Your task to perform on an android device: add a label to a message in the gmail app Image 0: 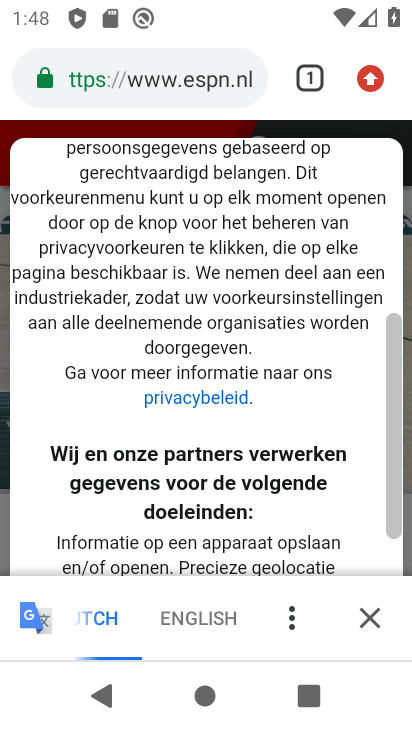
Step 0: press home button
Your task to perform on an android device: add a label to a message in the gmail app Image 1: 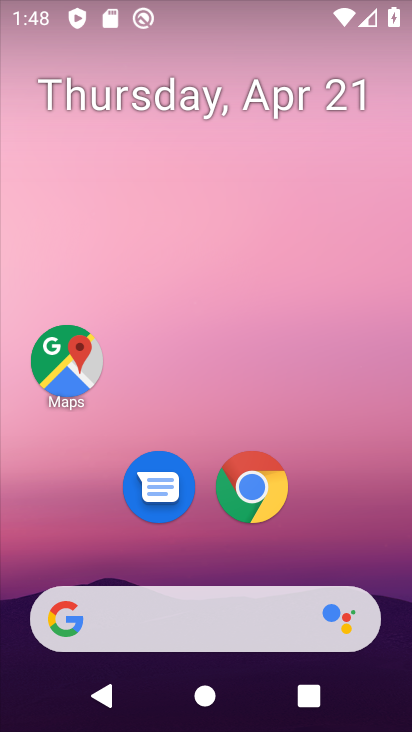
Step 1: drag from (216, 534) to (364, 35)
Your task to perform on an android device: add a label to a message in the gmail app Image 2: 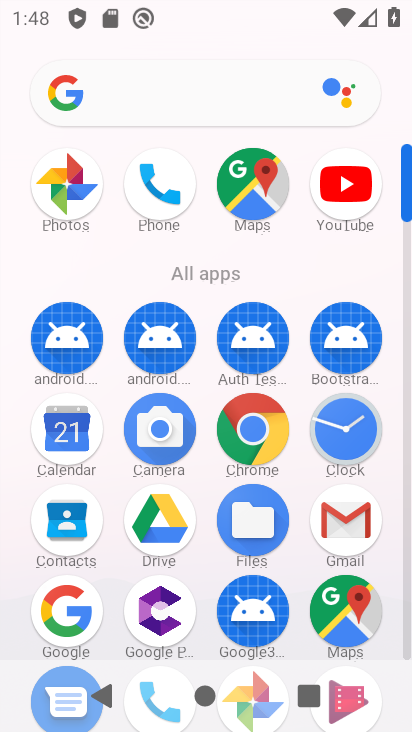
Step 2: click (330, 523)
Your task to perform on an android device: add a label to a message in the gmail app Image 3: 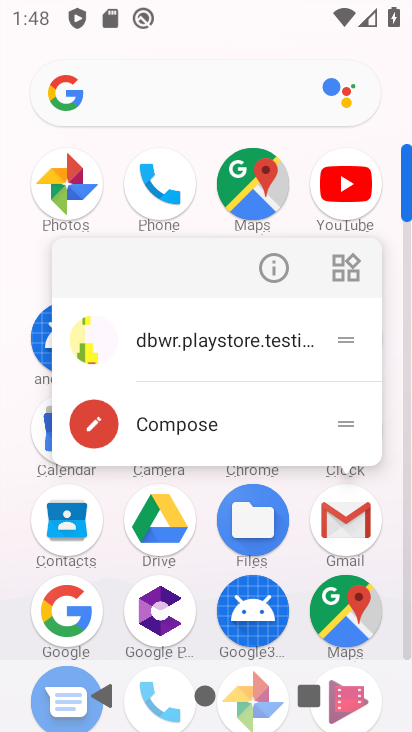
Step 3: click (268, 262)
Your task to perform on an android device: add a label to a message in the gmail app Image 4: 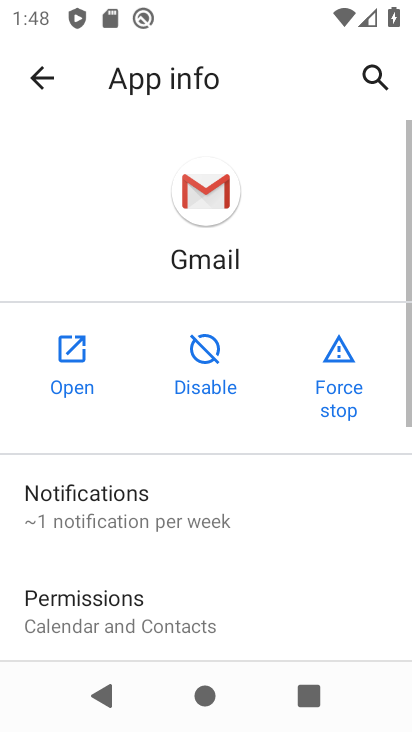
Step 4: click (78, 347)
Your task to perform on an android device: add a label to a message in the gmail app Image 5: 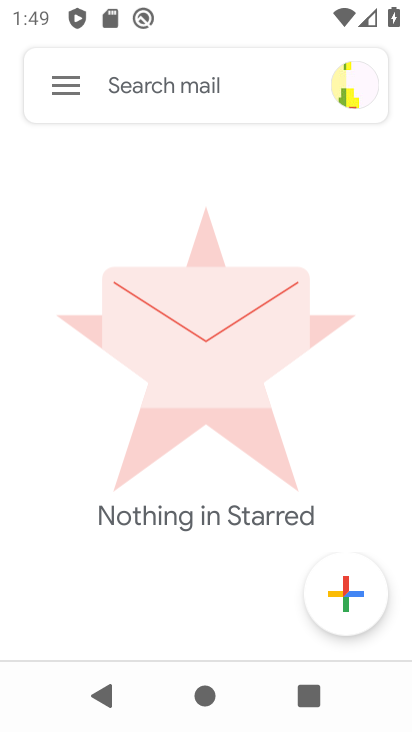
Step 5: drag from (132, 557) to (283, 324)
Your task to perform on an android device: add a label to a message in the gmail app Image 6: 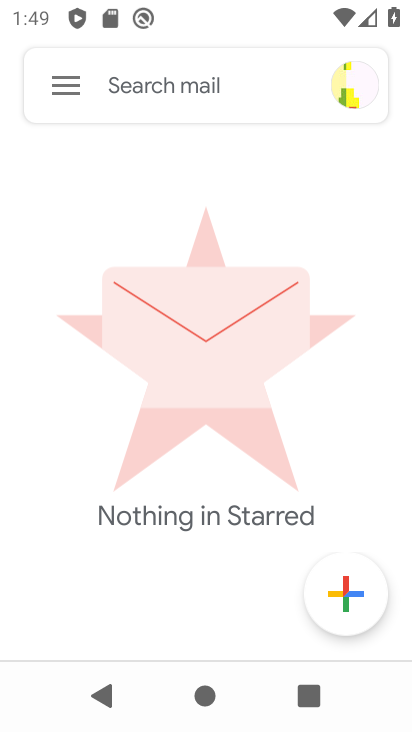
Step 6: drag from (245, 410) to (248, 248)
Your task to perform on an android device: add a label to a message in the gmail app Image 7: 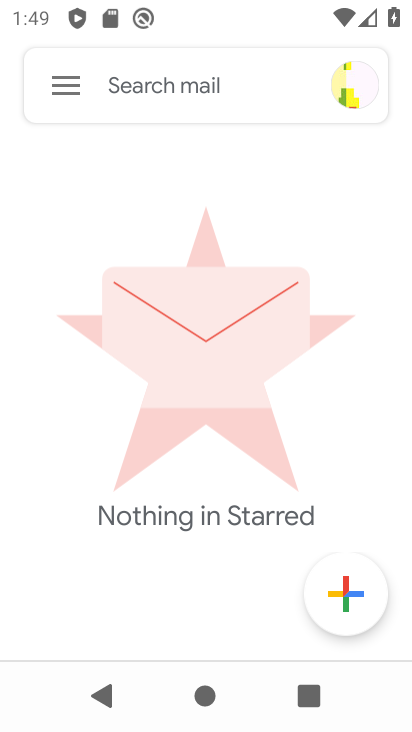
Step 7: drag from (193, 429) to (193, 259)
Your task to perform on an android device: add a label to a message in the gmail app Image 8: 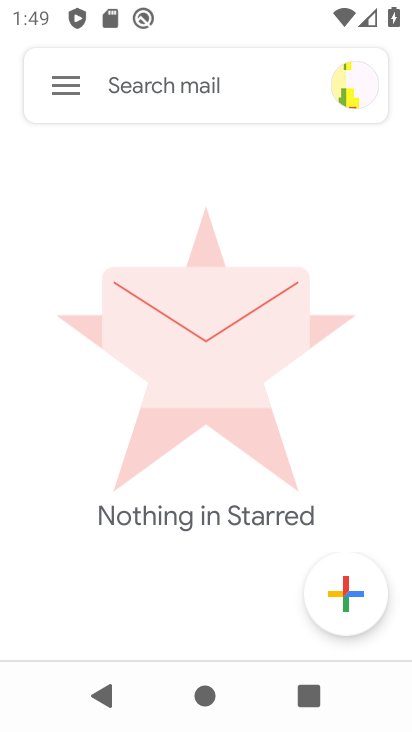
Step 8: click (78, 79)
Your task to perform on an android device: add a label to a message in the gmail app Image 9: 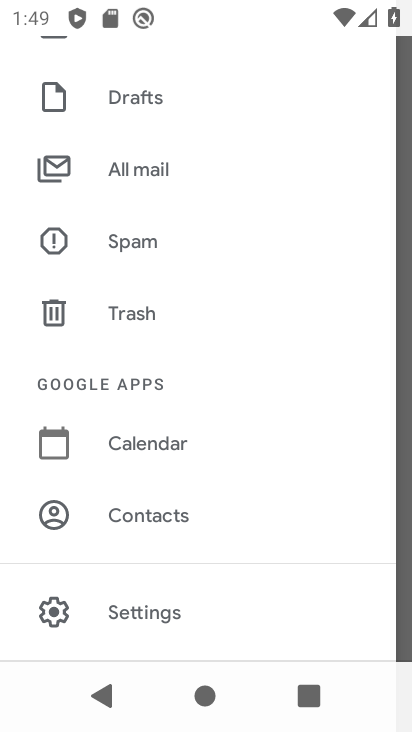
Step 9: drag from (187, 188) to (249, 724)
Your task to perform on an android device: add a label to a message in the gmail app Image 10: 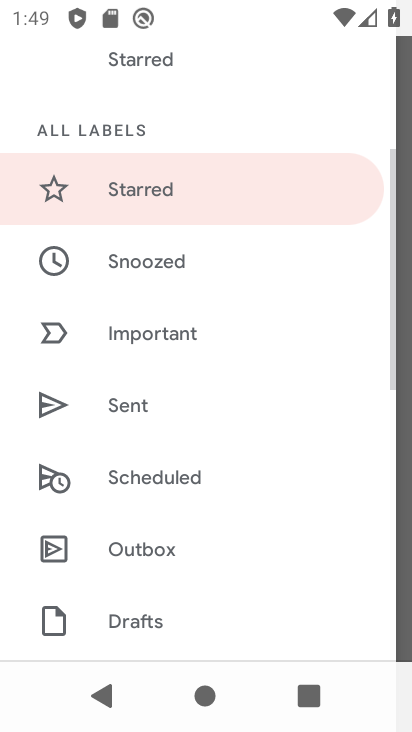
Step 10: drag from (197, 120) to (247, 543)
Your task to perform on an android device: add a label to a message in the gmail app Image 11: 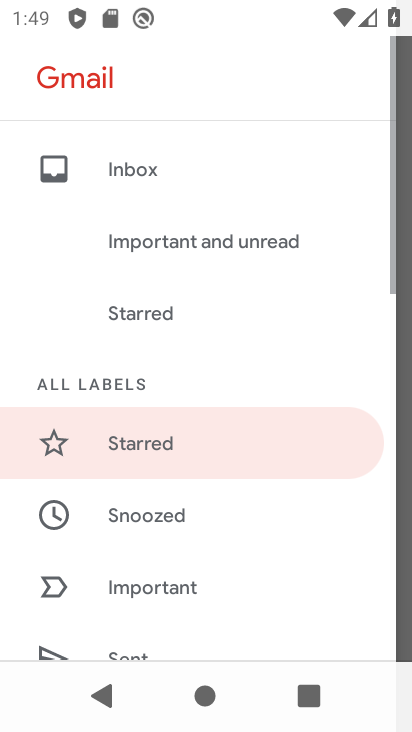
Step 11: click (187, 178)
Your task to perform on an android device: add a label to a message in the gmail app Image 12: 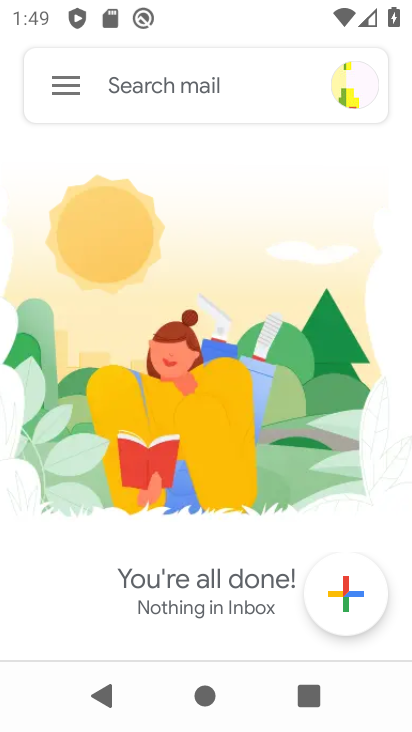
Step 12: task complete